Your task to perform on an android device: Open wifi settings Image 0: 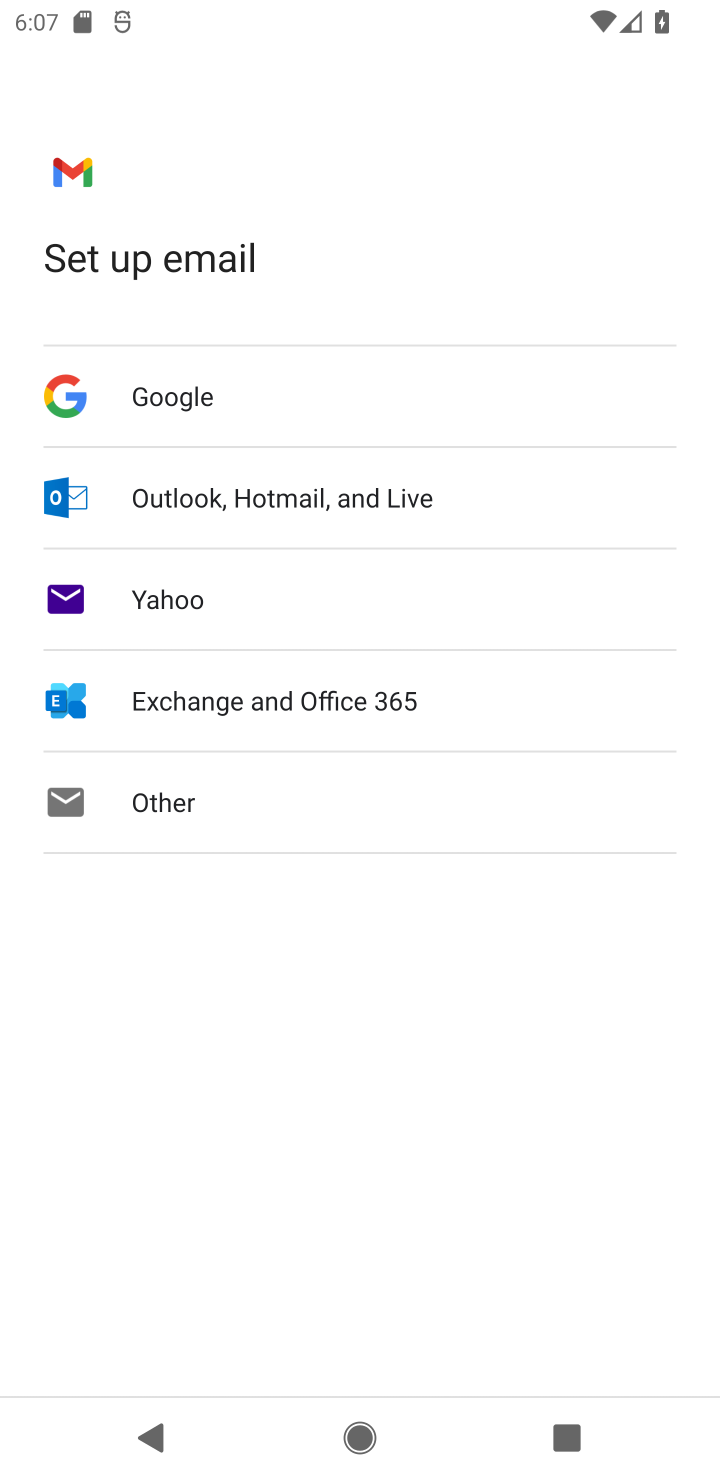
Step 0: press home button
Your task to perform on an android device: Open wifi settings Image 1: 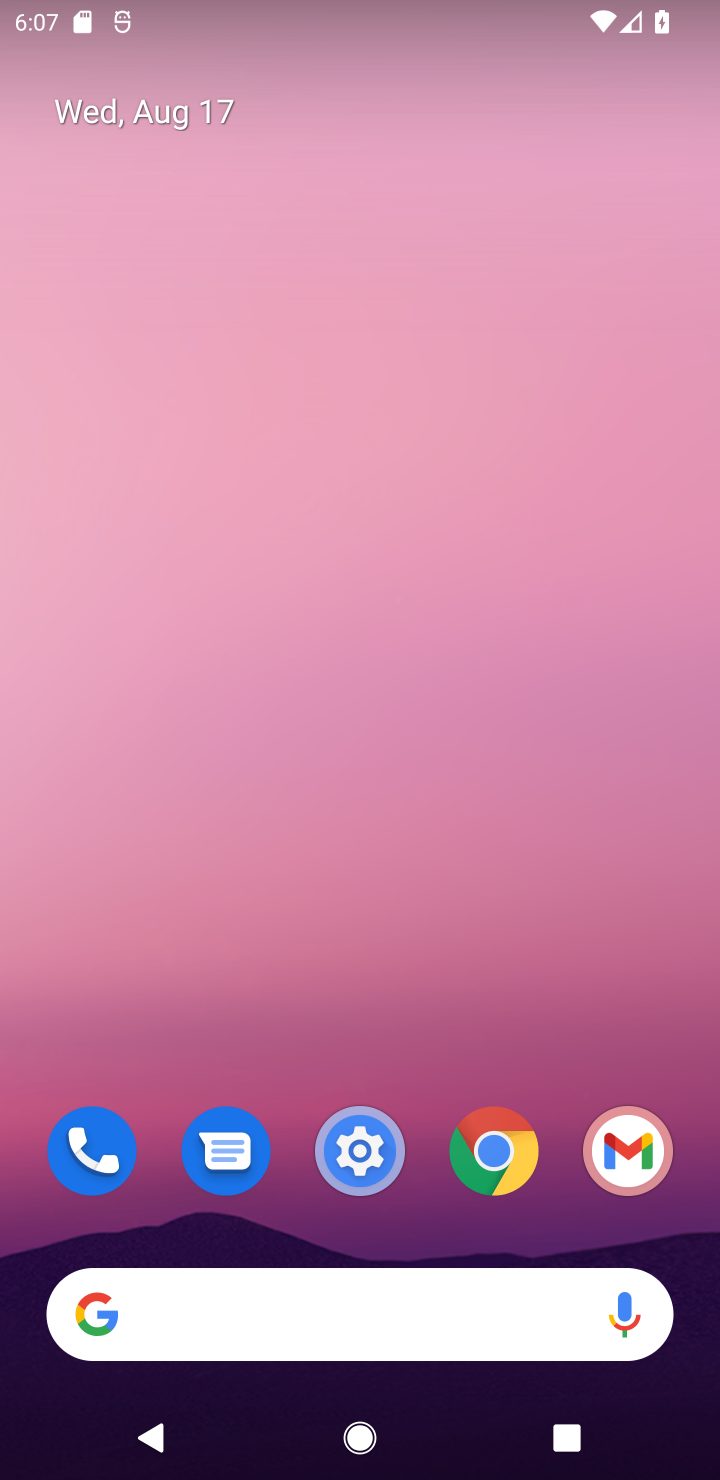
Step 1: click (396, 1162)
Your task to perform on an android device: Open wifi settings Image 2: 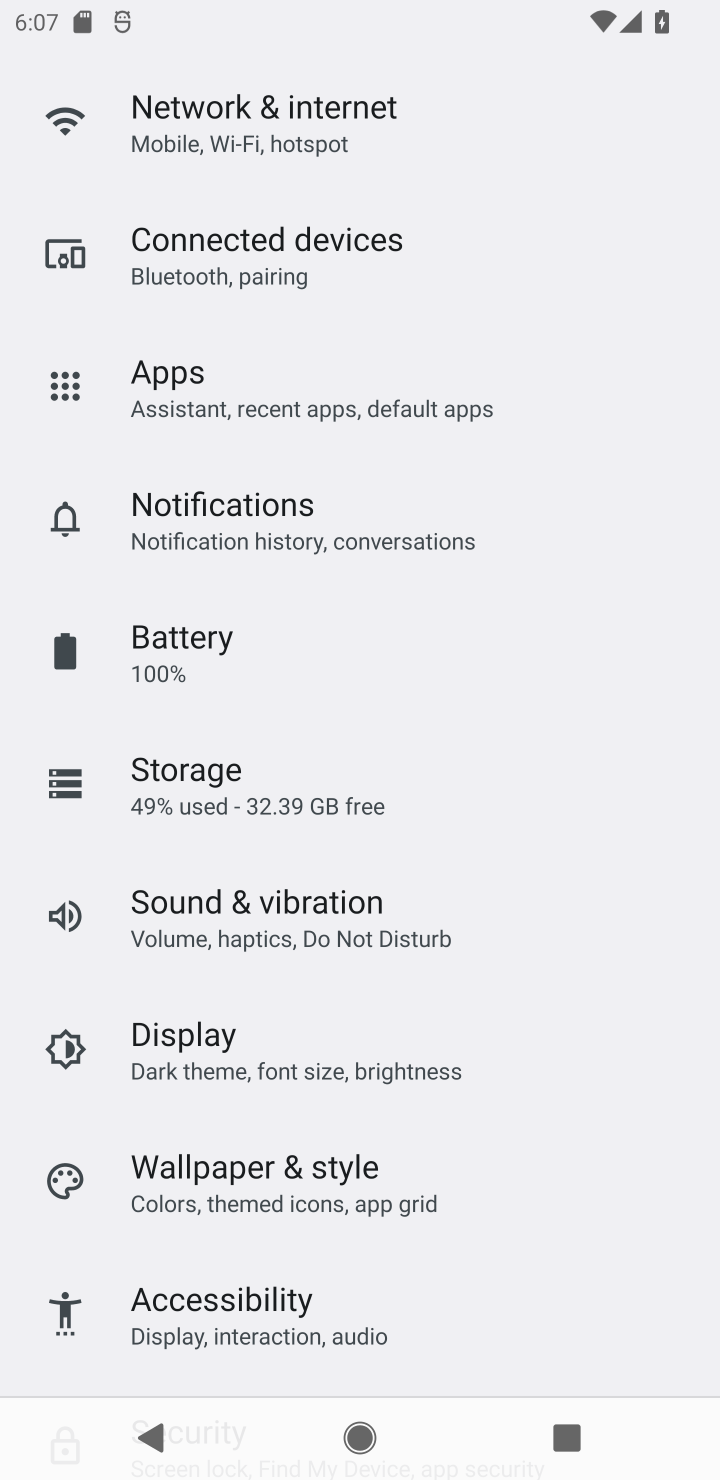
Step 2: click (212, 140)
Your task to perform on an android device: Open wifi settings Image 3: 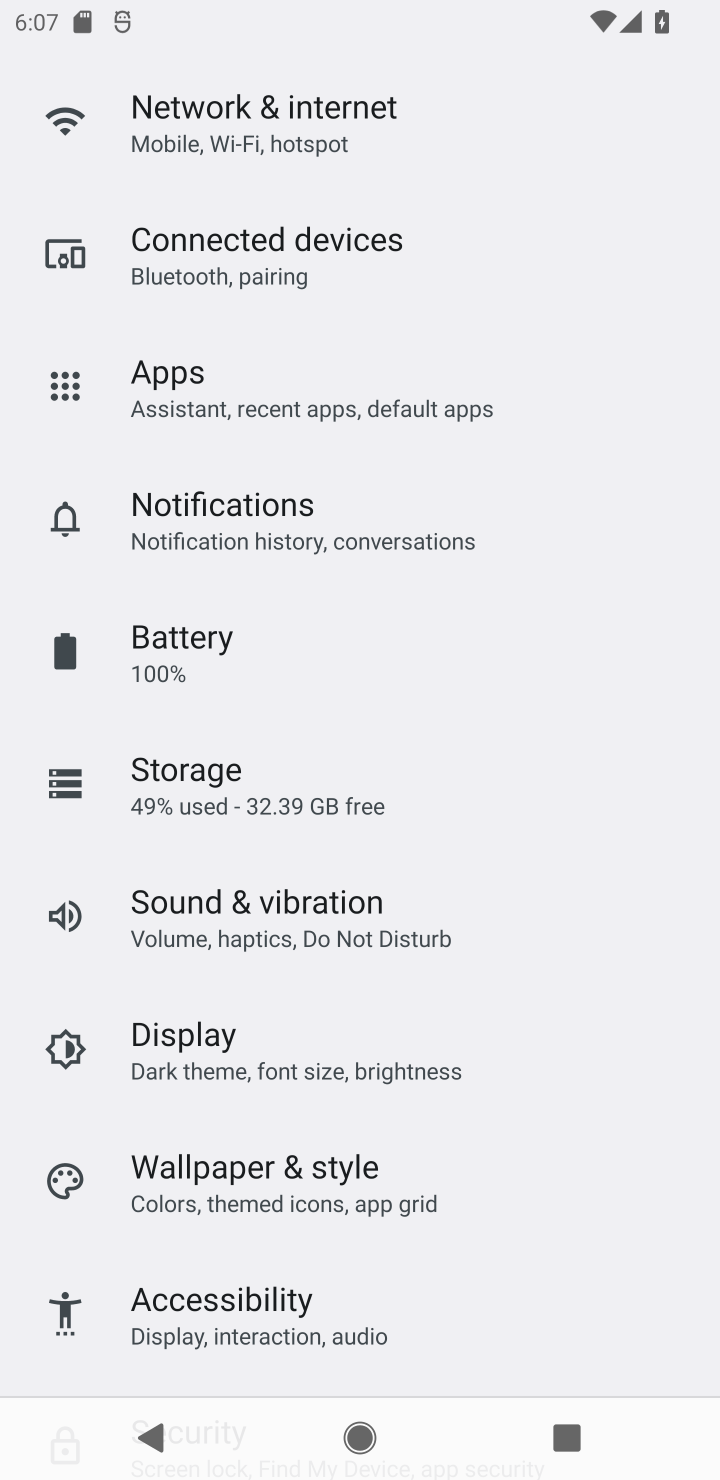
Step 3: task complete